Your task to perform on an android device: Go to ESPN.com Image 0: 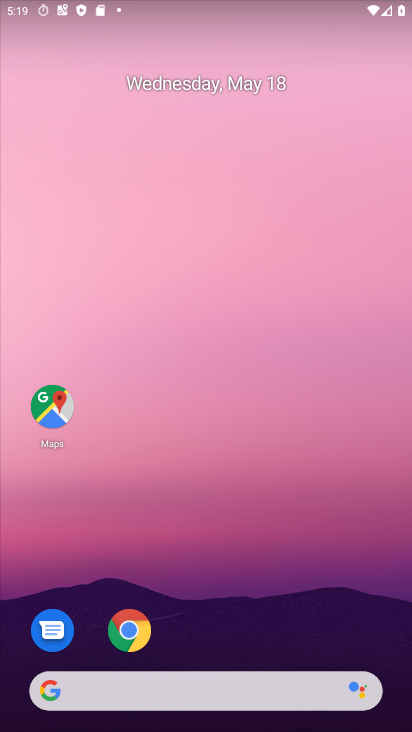
Step 0: click (130, 635)
Your task to perform on an android device: Go to ESPN.com Image 1: 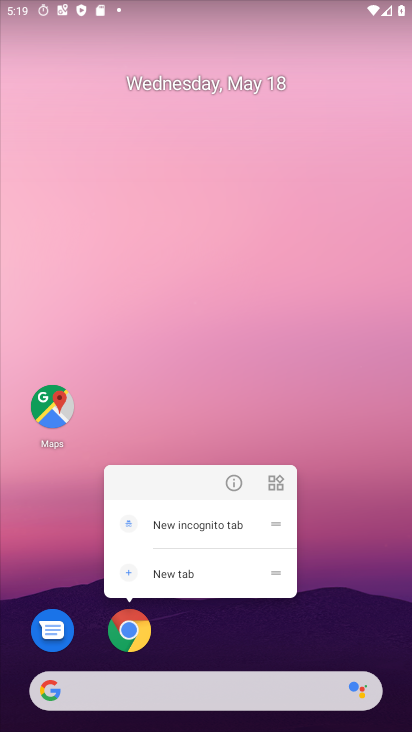
Step 1: click (165, 667)
Your task to perform on an android device: Go to ESPN.com Image 2: 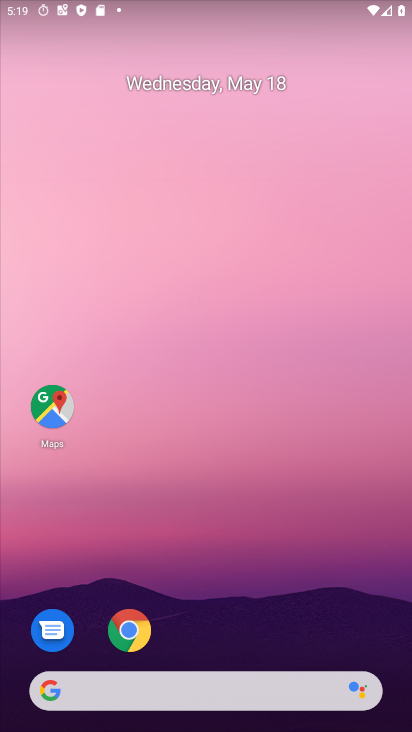
Step 2: click (132, 643)
Your task to perform on an android device: Go to ESPN.com Image 3: 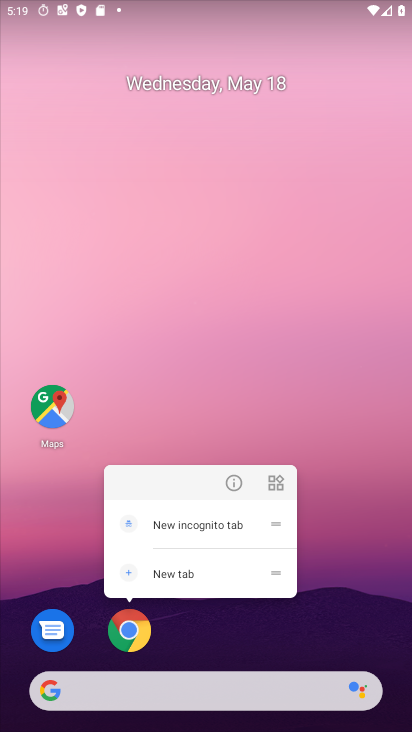
Step 3: click (129, 633)
Your task to perform on an android device: Go to ESPN.com Image 4: 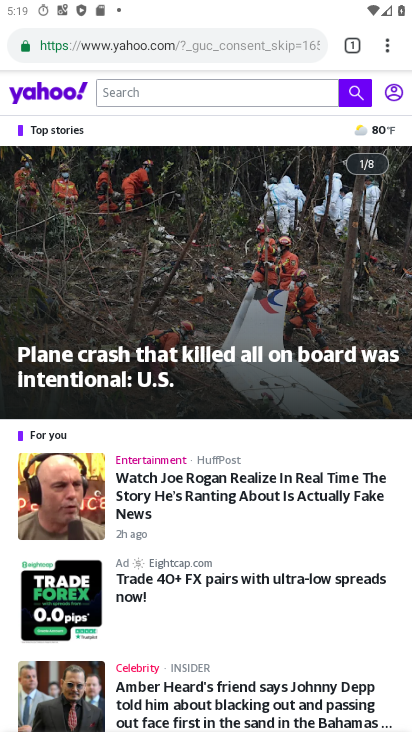
Step 4: click (352, 47)
Your task to perform on an android device: Go to ESPN.com Image 5: 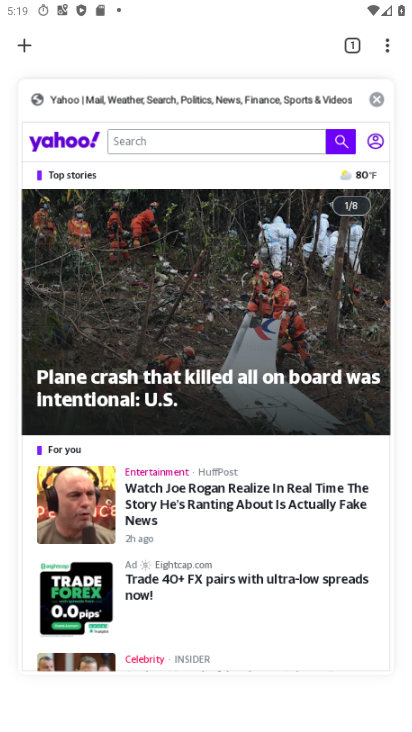
Step 5: click (380, 103)
Your task to perform on an android device: Go to ESPN.com Image 6: 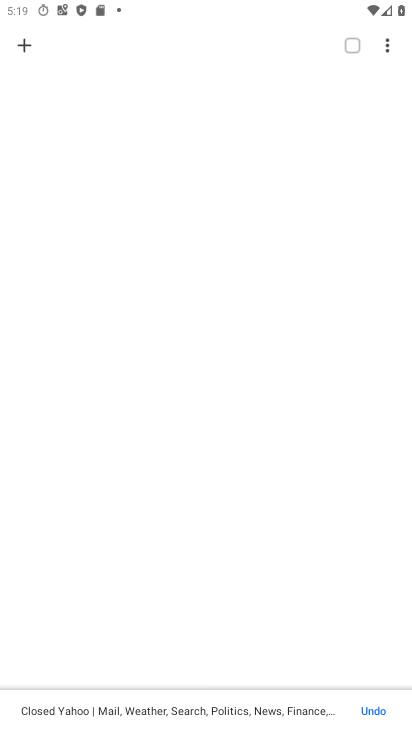
Step 6: click (24, 49)
Your task to perform on an android device: Go to ESPN.com Image 7: 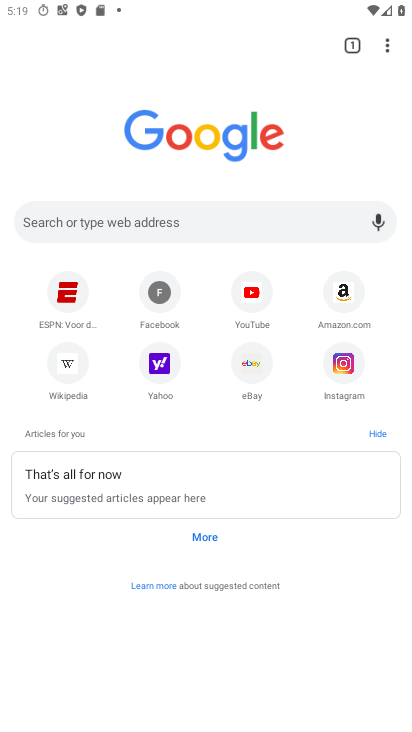
Step 7: click (56, 303)
Your task to perform on an android device: Go to ESPN.com Image 8: 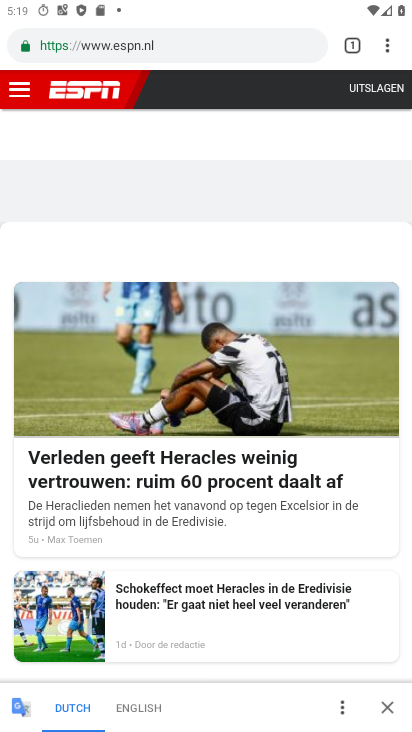
Step 8: task complete